Your task to perform on an android device: Open eBay Image 0: 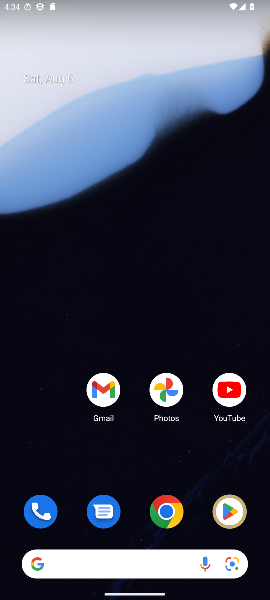
Step 0: click (167, 516)
Your task to perform on an android device: Open eBay Image 1: 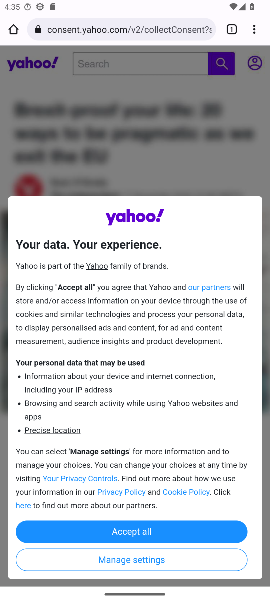
Step 1: click (158, 519)
Your task to perform on an android device: Open eBay Image 2: 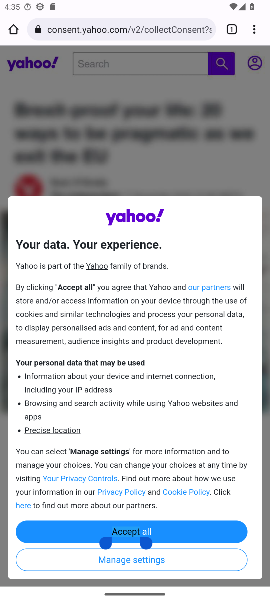
Step 2: click (156, 535)
Your task to perform on an android device: Open eBay Image 3: 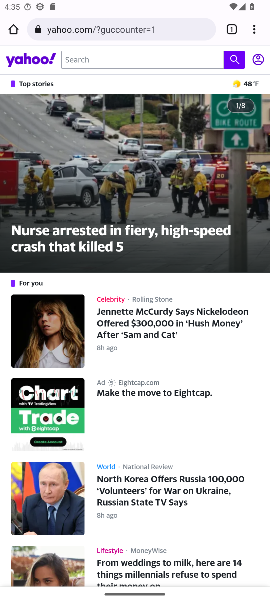
Step 3: click (127, 24)
Your task to perform on an android device: Open eBay Image 4: 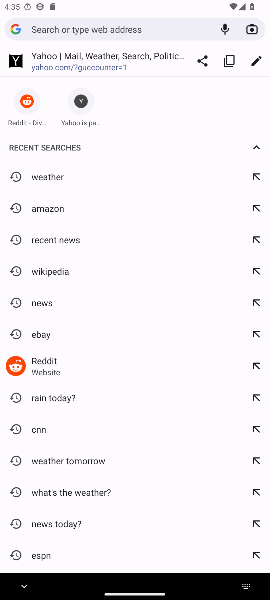
Step 4: type "eBay"
Your task to perform on an android device: Open eBay Image 5: 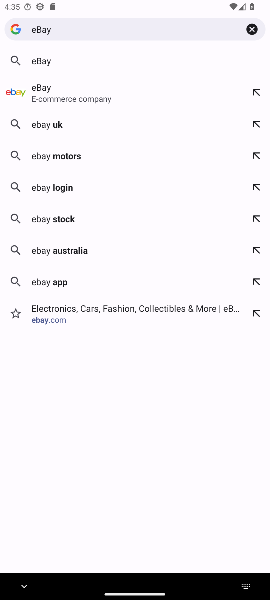
Step 5: click (57, 81)
Your task to perform on an android device: Open eBay Image 6: 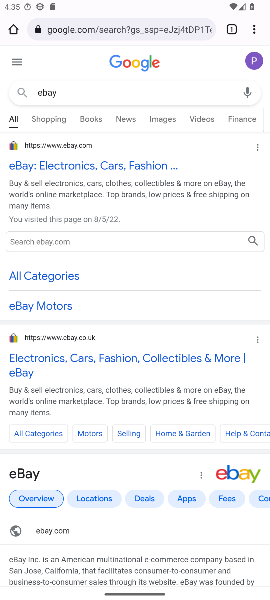
Step 6: task complete